Your task to perform on an android device: Open sound settings Image 0: 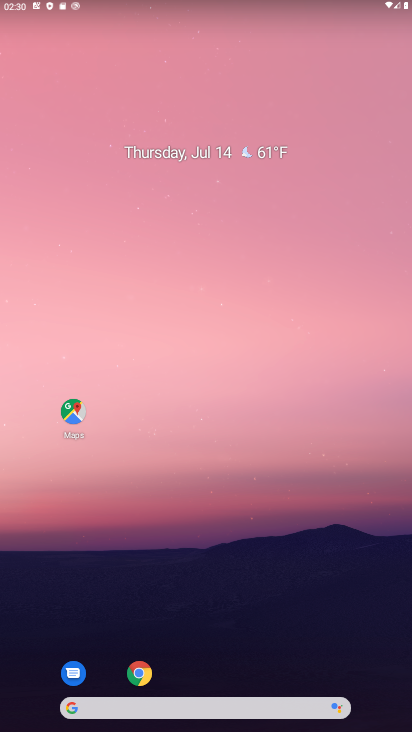
Step 0: drag from (250, 646) to (346, 37)
Your task to perform on an android device: Open sound settings Image 1: 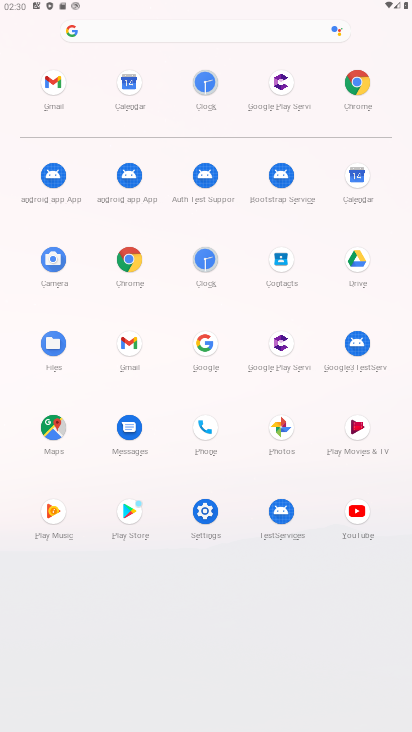
Step 1: click (207, 523)
Your task to perform on an android device: Open sound settings Image 2: 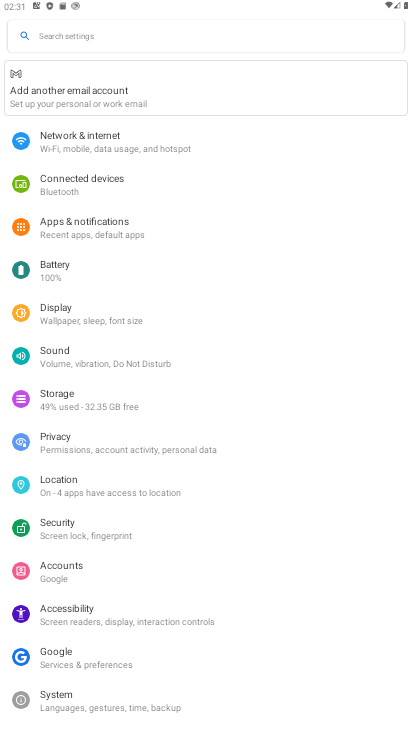
Step 2: click (62, 361)
Your task to perform on an android device: Open sound settings Image 3: 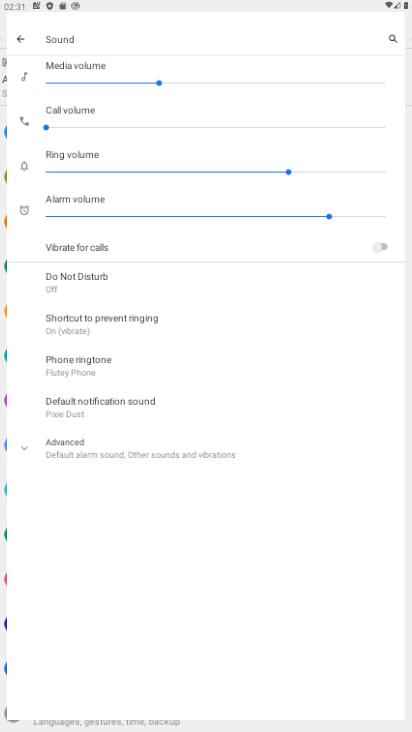
Step 3: task complete